Your task to perform on an android device: Clear the cart on target.com. Add "logitech g933" to the cart on target.com Image 0: 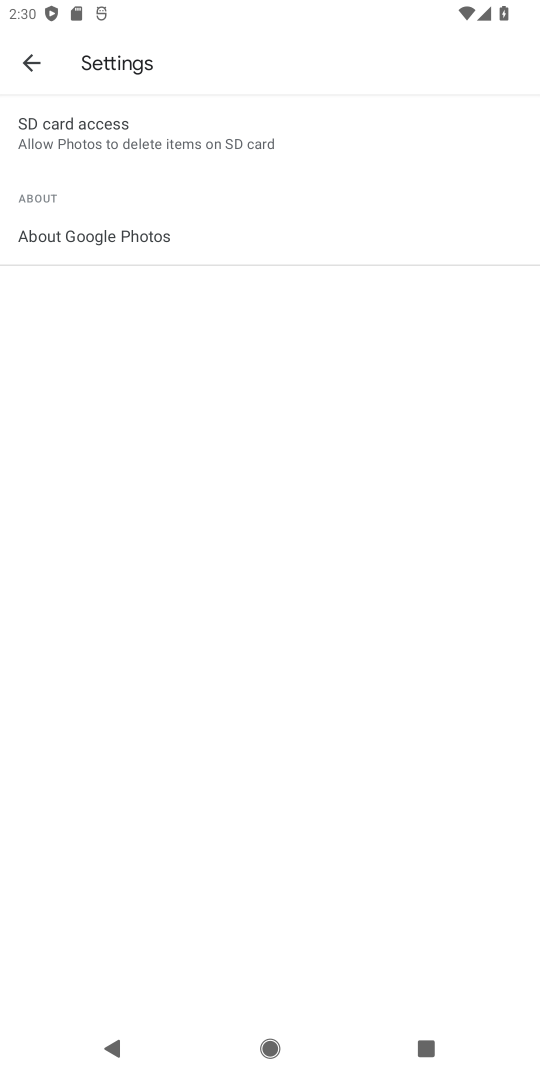
Step 0: press home button
Your task to perform on an android device: Clear the cart on target.com. Add "logitech g933" to the cart on target.com Image 1: 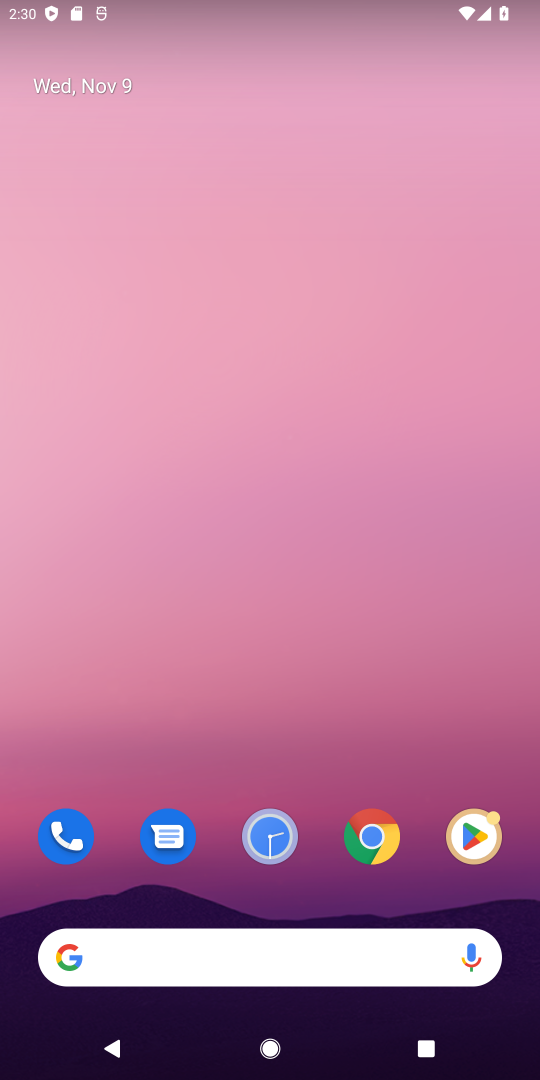
Step 1: click (354, 833)
Your task to perform on an android device: Clear the cart on target.com. Add "logitech g933" to the cart on target.com Image 2: 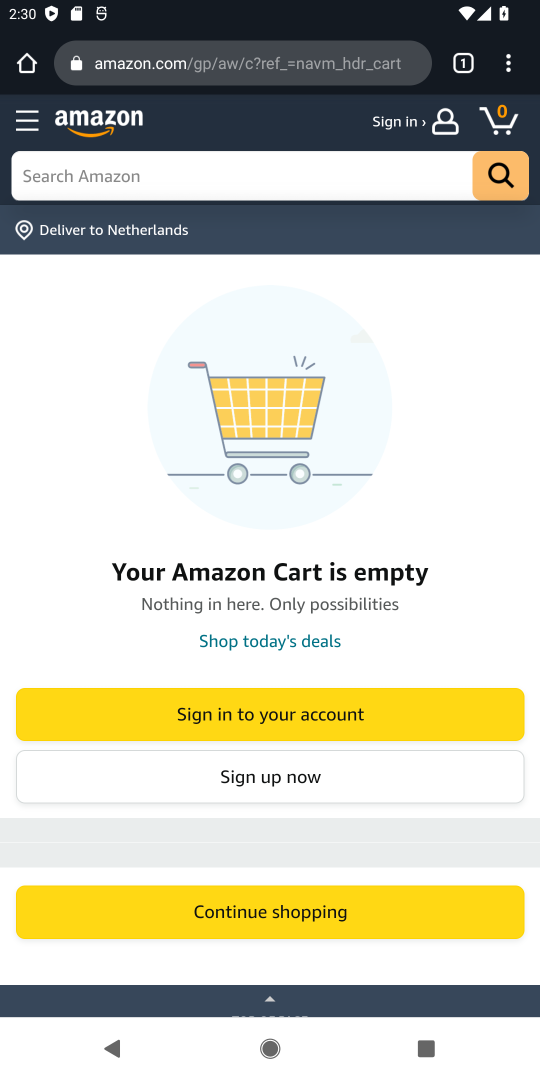
Step 2: click (247, 60)
Your task to perform on an android device: Clear the cart on target.com. Add "logitech g933" to the cart on target.com Image 3: 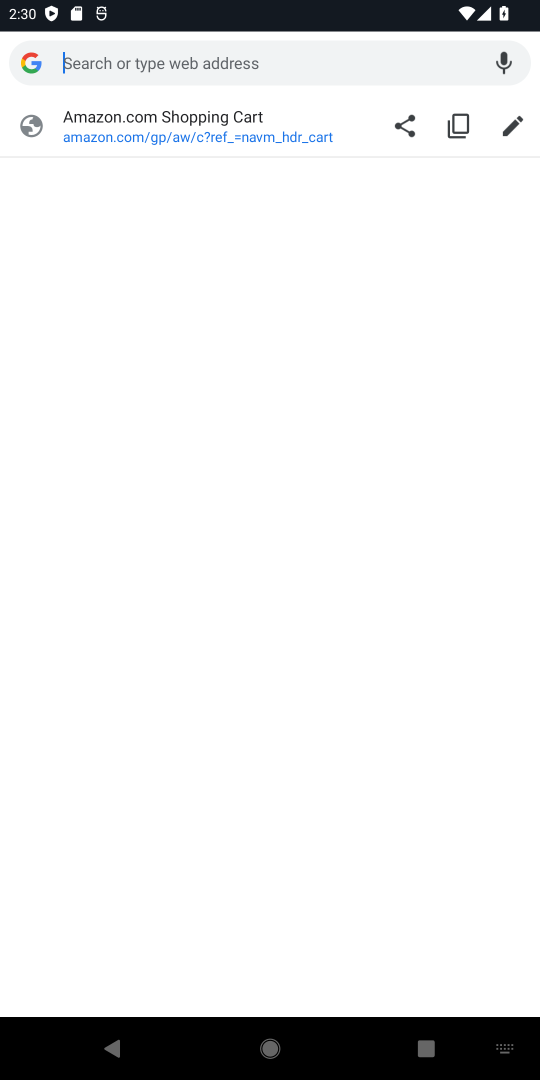
Step 3: type "target.com"
Your task to perform on an android device: Clear the cart on target.com. Add "logitech g933" to the cart on target.com Image 4: 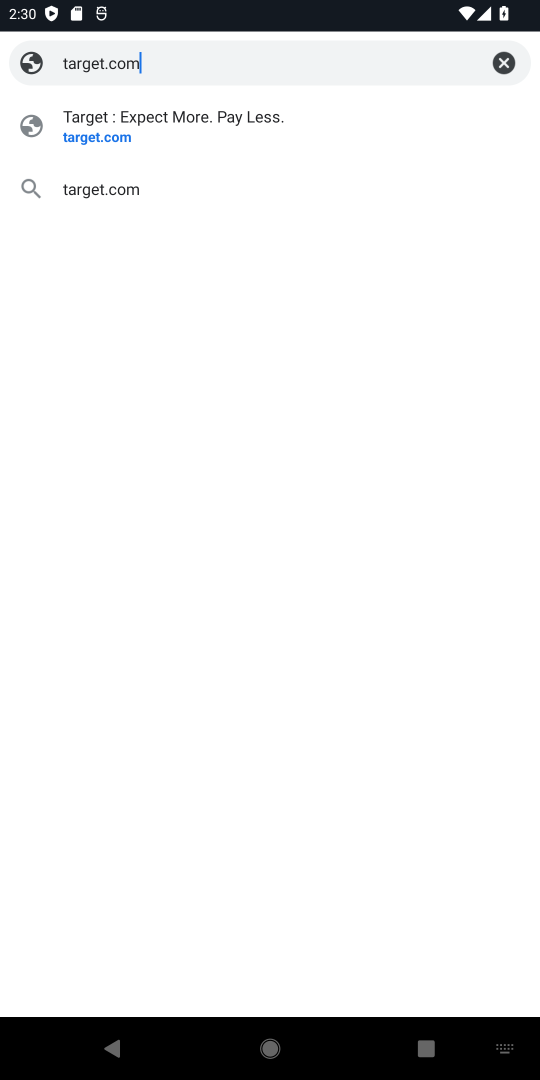
Step 4: click (255, 121)
Your task to perform on an android device: Clear the cart on target.com. Add "logitech g933" to the cart on target.com Image 5: 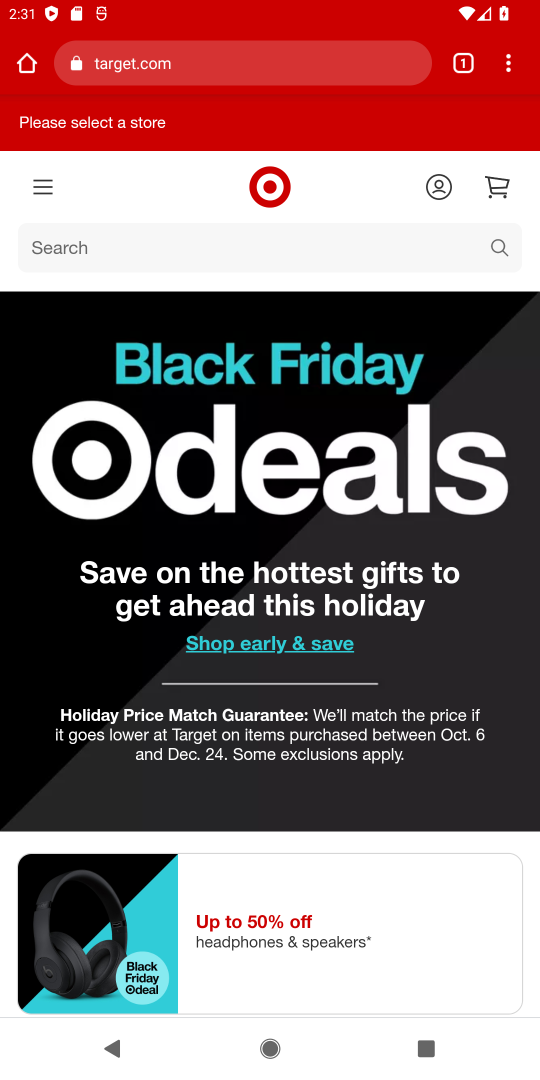
Step 5: click (501, 181)
Your task to perform on an android device: Clear the cart on target.com. Add "logitech g933" to the cart on target.com Image 6: 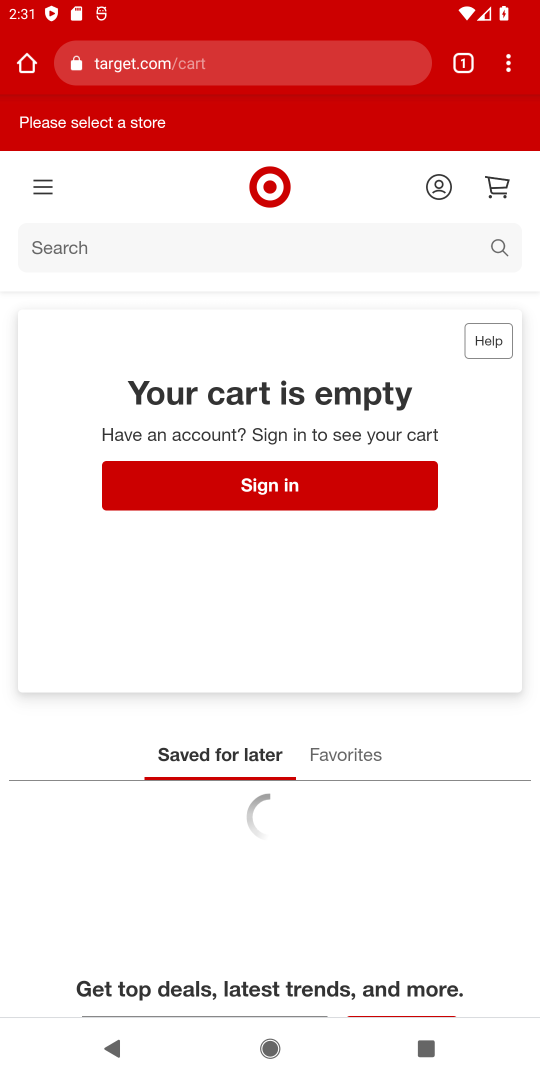
Step 6: click (194, 244)
Your task to perform on an android device: Clear the cart on target.com. Add "logitech g933" to the cart on target.com Image 7: 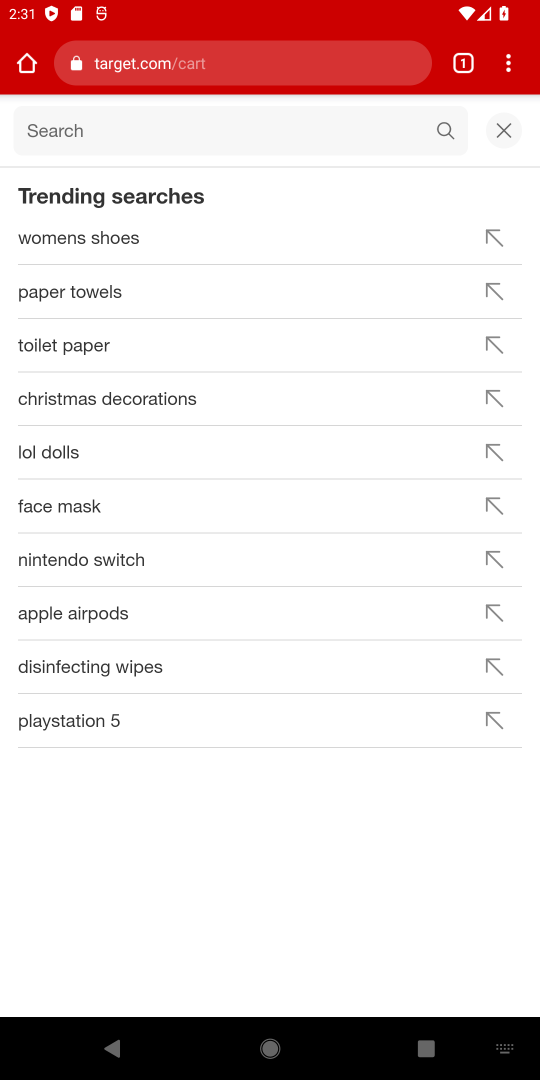
Step 7: type "logitech g933"
Your task to perform on an android device: Clear the cart on target.com. Add "logitech g933" to the cart on target.com Image 8: 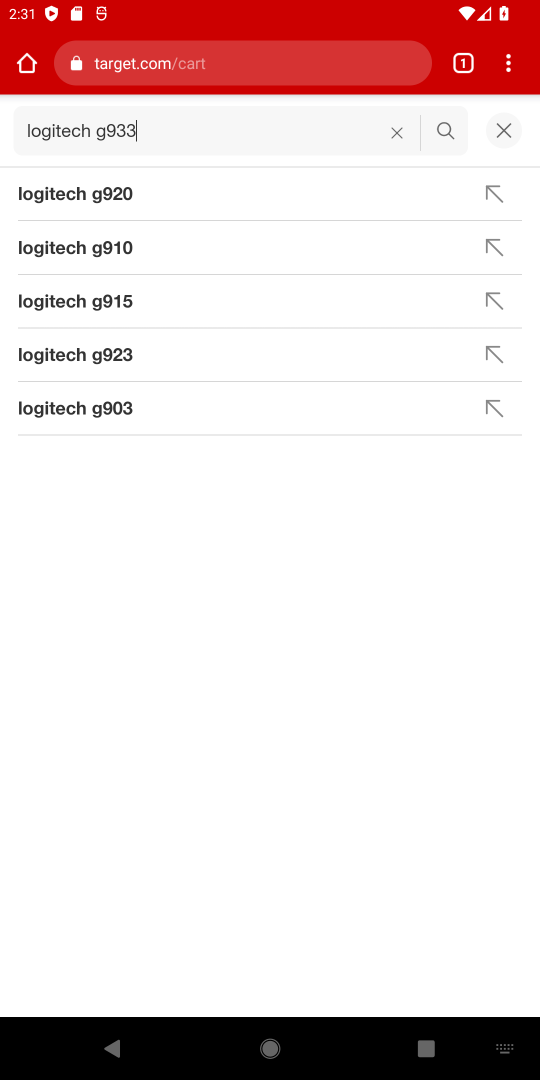
Step 8: click (446, 131)
Your task to perform on an android device: Clear the cart on target.com. Add "logitech g933" to the cart on target.com Image 9: 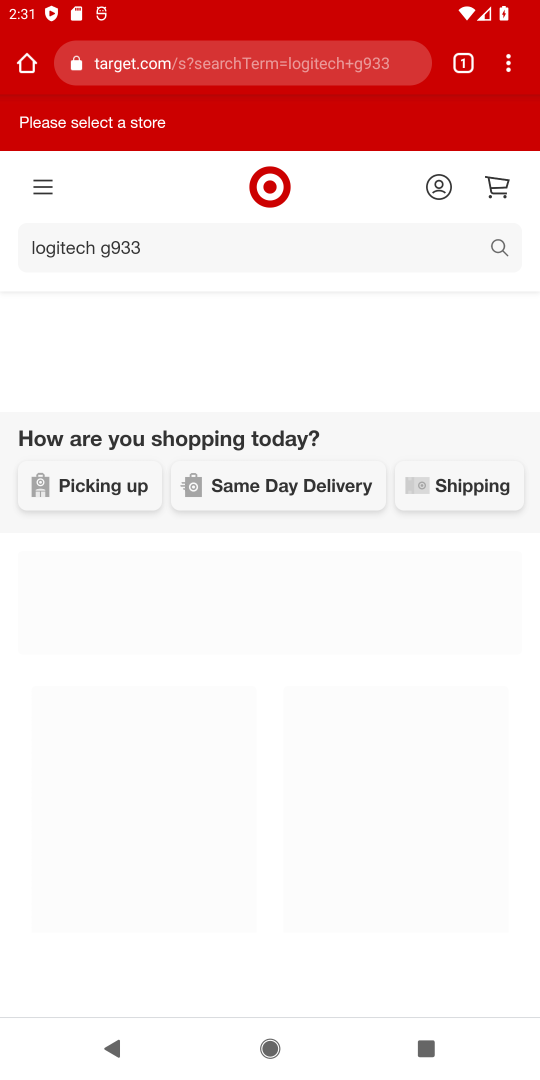
Step 9: drag from (416, 595) to (345, 207)
Your task to perform on an android device: Clear the cart on target.com. Add "logitech g933" to the cart on target.com Image 10: 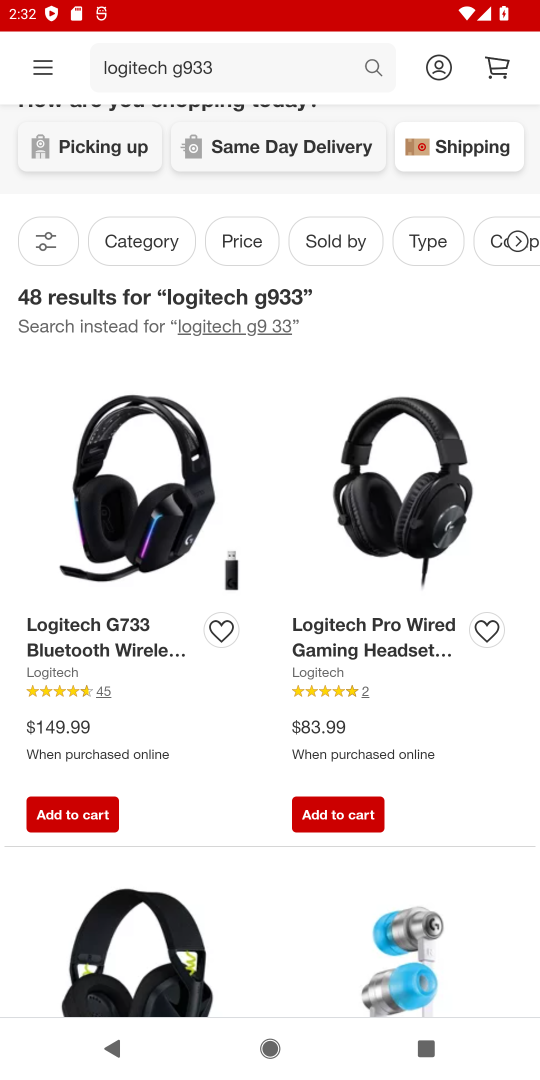
Step 10: drag from (414, 692) to (416, 300)
Your task to perform on an android device: Clear the cart on target.com. Add "logitech g933" to the cart on target.com Image 11: 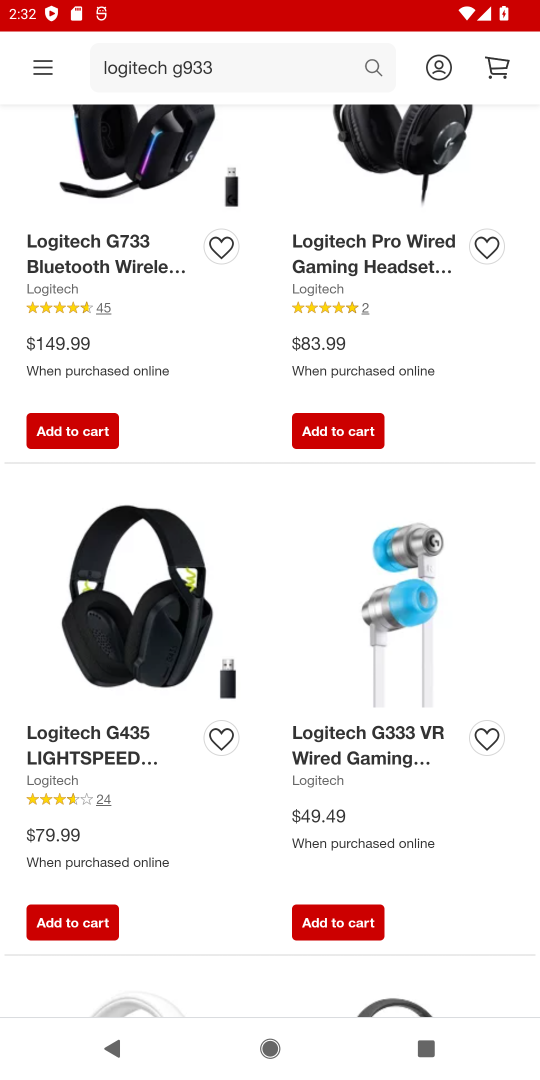
Step 11: click (205, 950)
Your task to perform on an android device: Clear the cart on target.com. Add "logitech g933" to the cart on target.com Image 12: 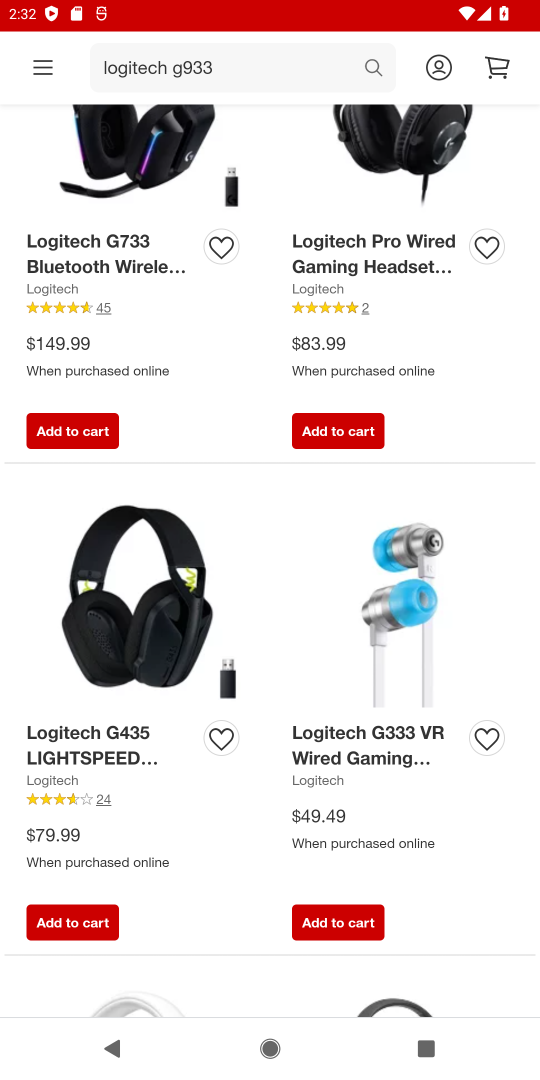
Step 12: task complete